Your task to perform on an android device: set default search engine in the chrome app Image 0: 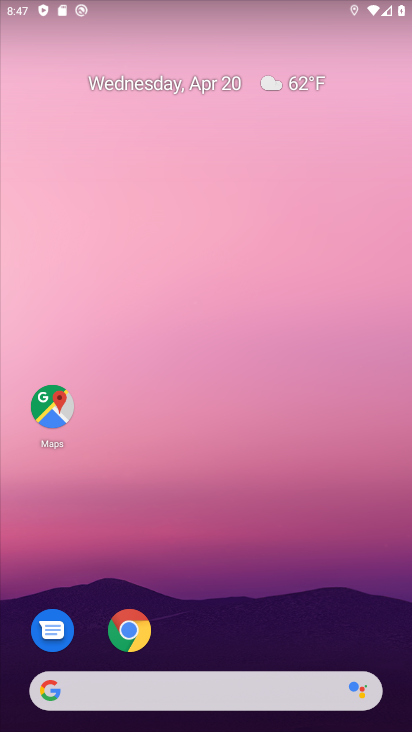
Step 0: click (130, 624)
Your task to perform on an android device: set default search engine in the chrome app Image 1: 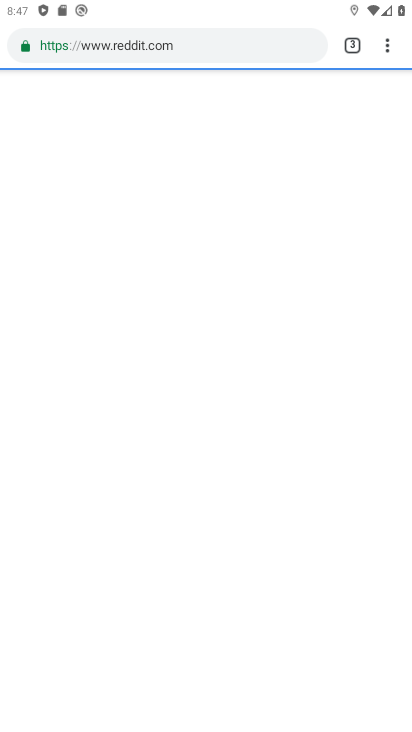
Step 1: click (391, 49)
Your task to perform on an android device: set default search engine in the chrome app Image 2: 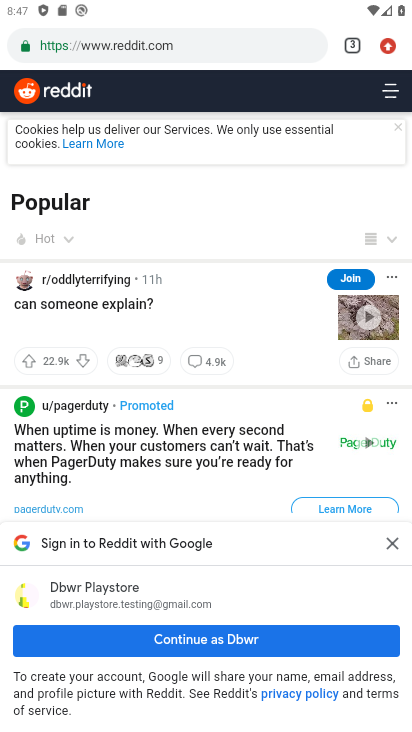
Step 2: click (383, 43)
Your task to perform on an android device: set default search engine in the chrome app Image 3: 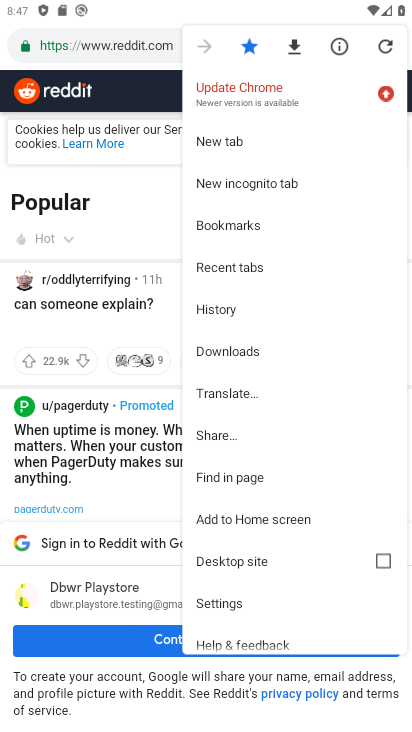
Step 3: click (220, 601)
Your task to perform on an android device: set default search engine in the chrome app Image 4: 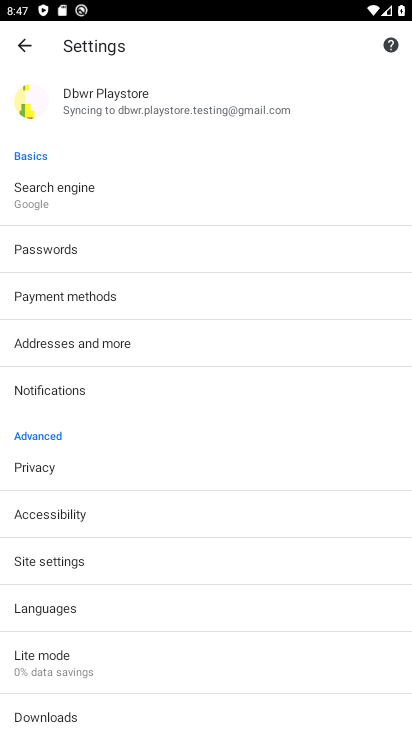
Step 4: drag from (65, 585) to (122, 355)
Your task to perform on an android device: set default search engine in the chrome app Image 5: 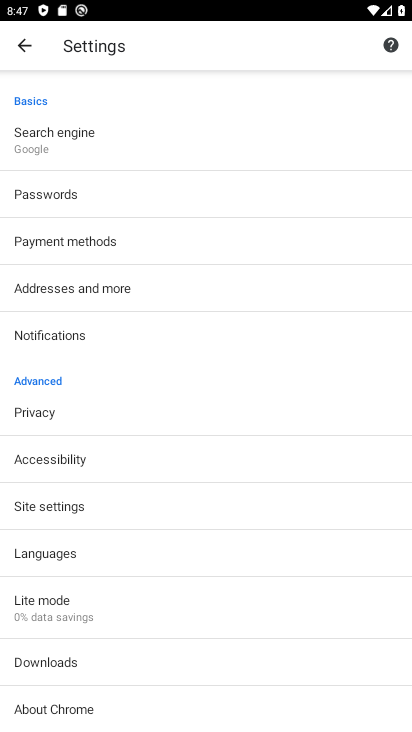
Step 5: click (73, 132)
Your task to perform on an android device: set default search engine in the chrome app Image 6: 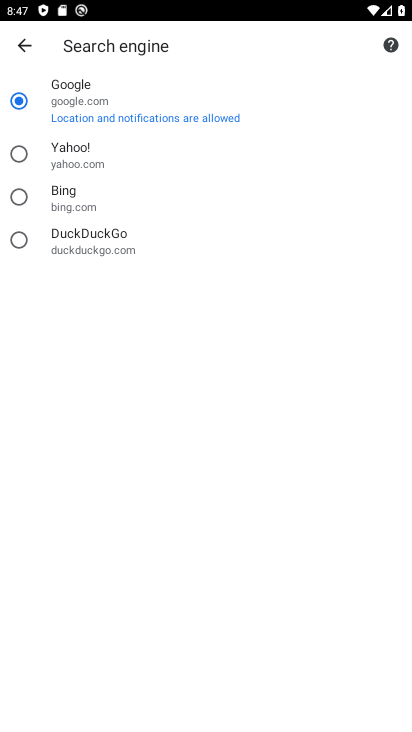
Step 6: task complete